Your task to perform on an android device: Open the stopwatch Image 0: 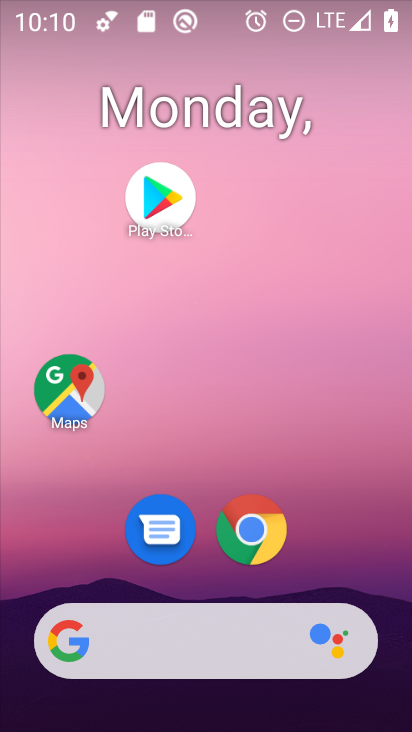
Step 0: drag from (228, 457) to (207, 137)
Your task to perform on an android device: Open the stopwatch Image 1: 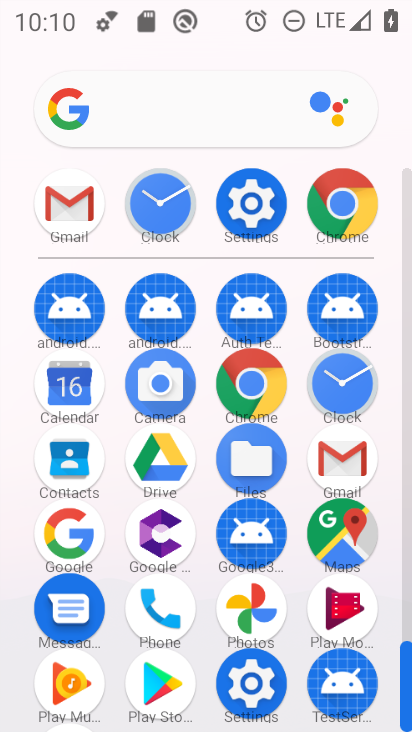
Step 1: click (347, 378)
Your task to perform on an android device: Open the stopwatch Image 2: 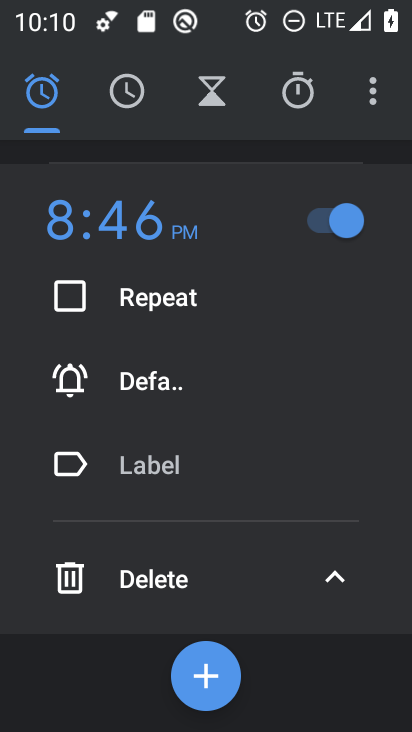
Step 2: click (294, 92)
Your task to perform on an android device: Open the stopwatch Image 3: 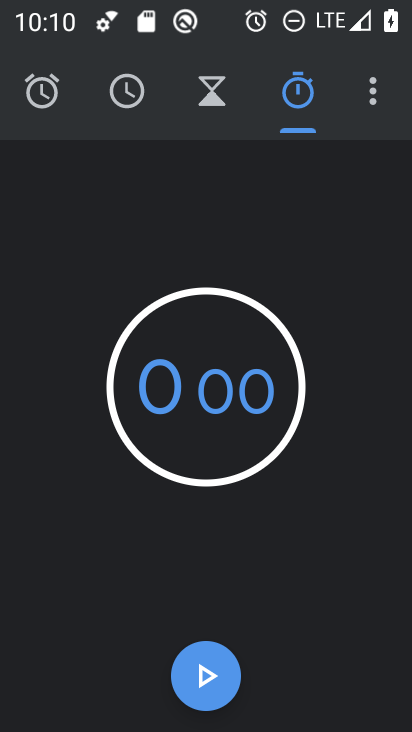
Step 3: task complete